Your task to perform on an android device: Play the last video I watched on Youtube Image 0: 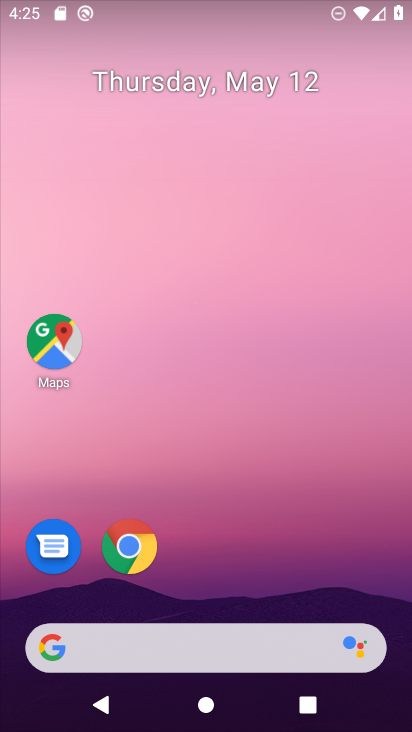
Step 0: drag from (195, 523) to (203, 206)
Your task to perform on an android device: Play the last video I watched on Youtube Image 1: 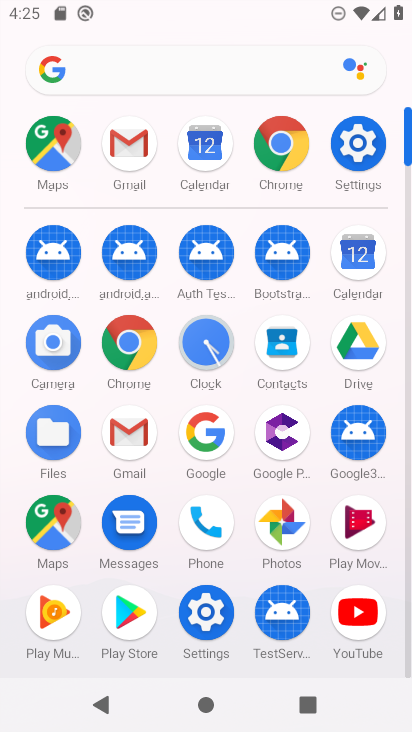
Step 1: click (351, 614)
Your task to perform on an android device: Play the last video I watched on Youtube Image 2: 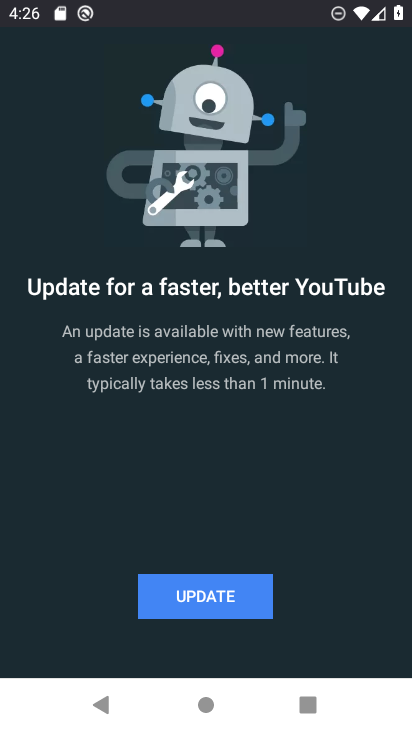
Step 2: task complete